Your task to perform on an android device: Go to Amazon Image 0: 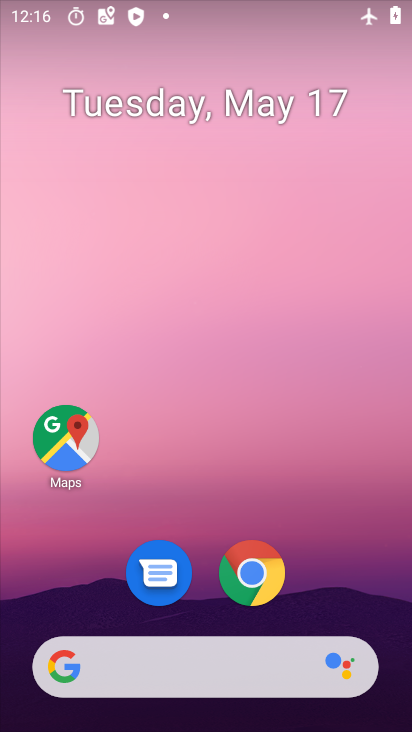
Step 0: drag from (122, 719) to (257, 33)
Your task to perform on an android device: Go to Amazon Image 1: 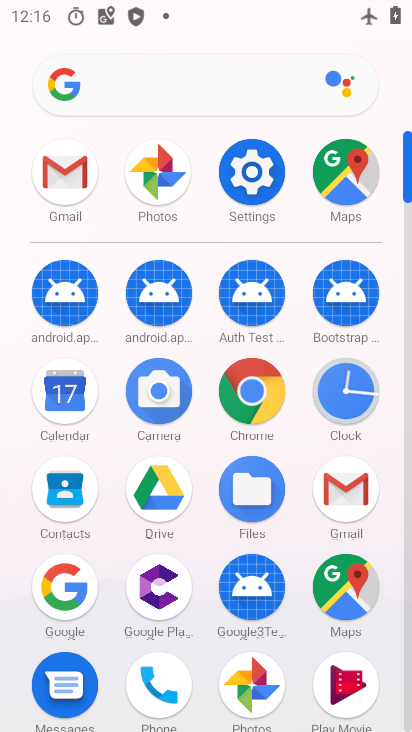
Step 1: click (274, 394)
Your task to perform on an android device: Go to Amazon Image 2: 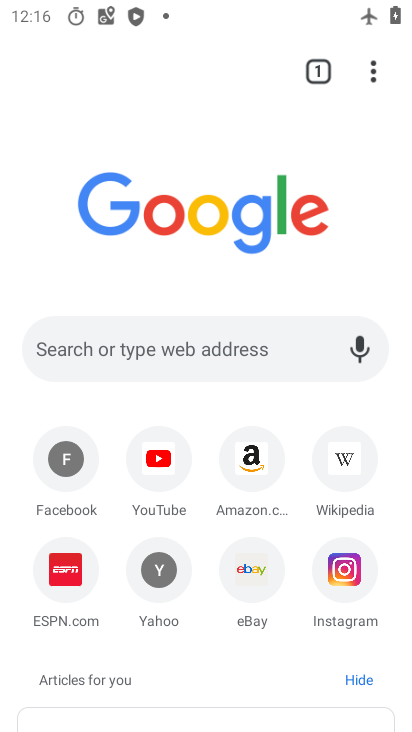
Step 2: click (257, 464)
Your task to perform on an android device: Go to Amazon Image 3: 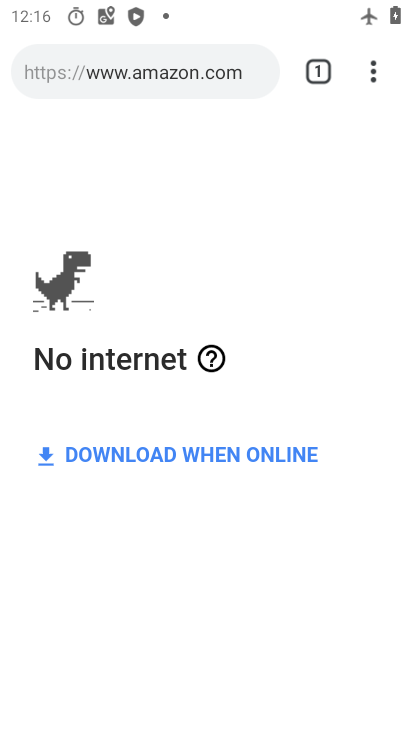
Step 3: task complete